Your task to perform on an android device: turn notification dots on Image 0: 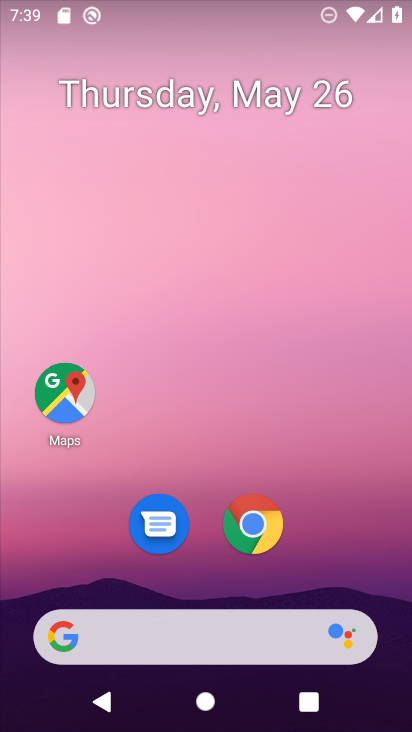
Step 0: drag from (217, 450) to (194, 30)
Your task to perform on an android device: turn notification dots on Image 1: 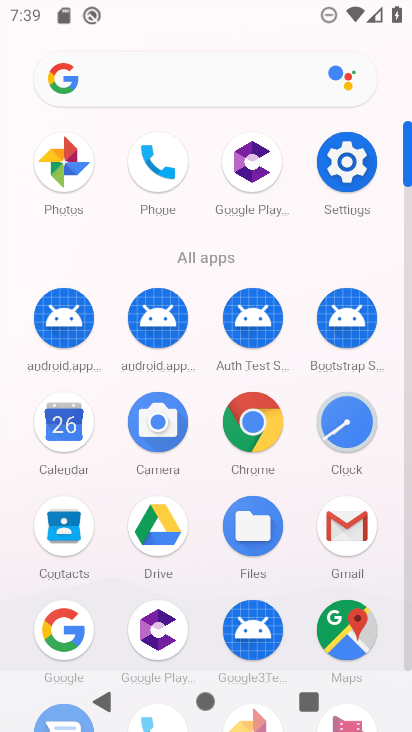
Step 1: click (334, 171)
Your task to perform on an android device: turn notification dots on Image 2: 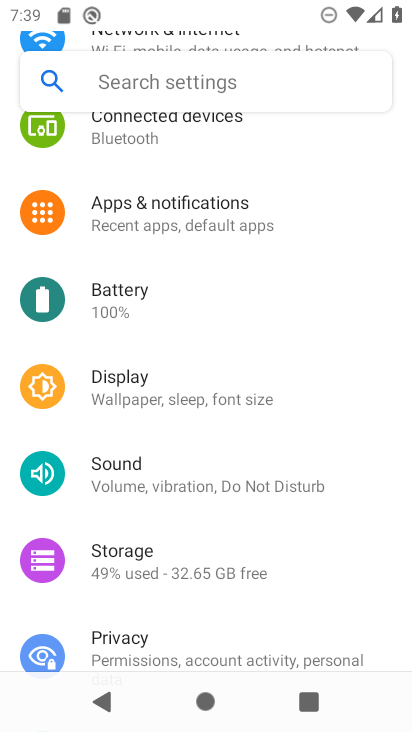
Step 2: click (231, 211)
Your task to perform on an android device: turn notification dots on Image 3: 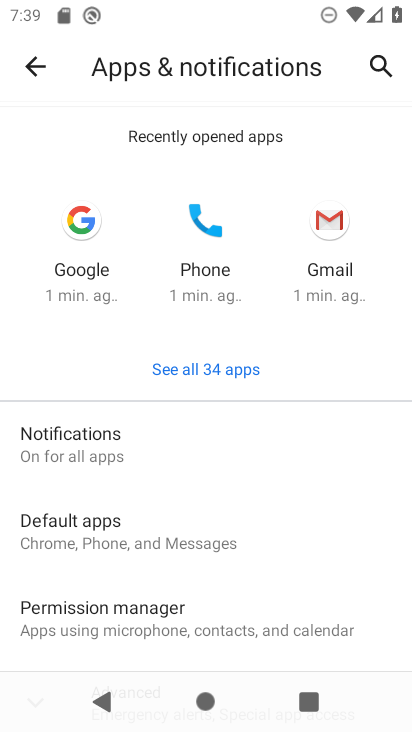
Step 3: click (187, 428)
Your task to perform on an android device: turn notification dots on Image 4: 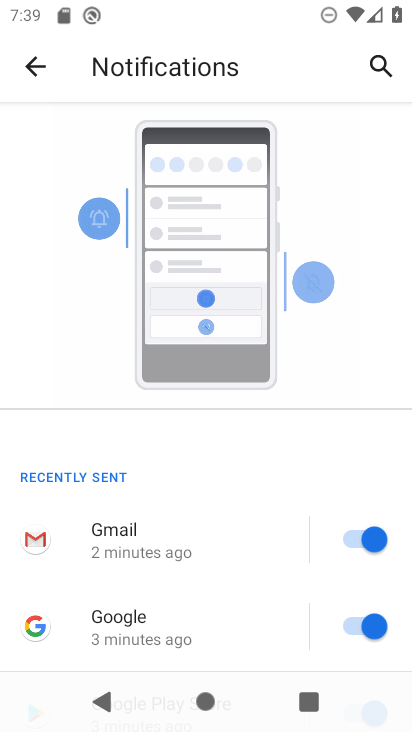
Step 4: drag from (225, 501) to (271, 28)
Your task to perform on an android device: turn notification dots on Image 5: 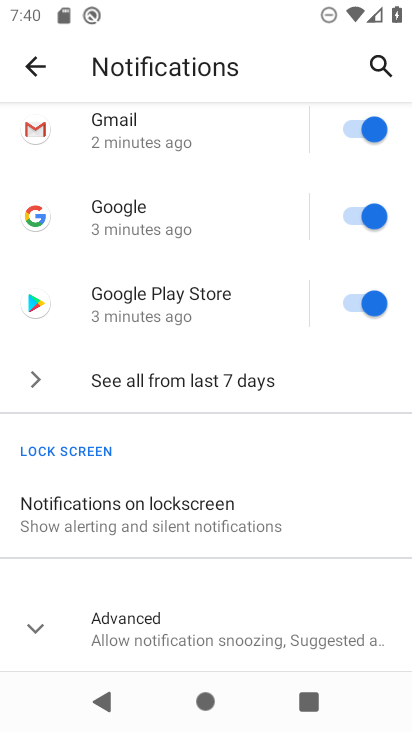
Step 5: click (38, 624)
Your task to perform on an android device: turn notification dots on Image 6: 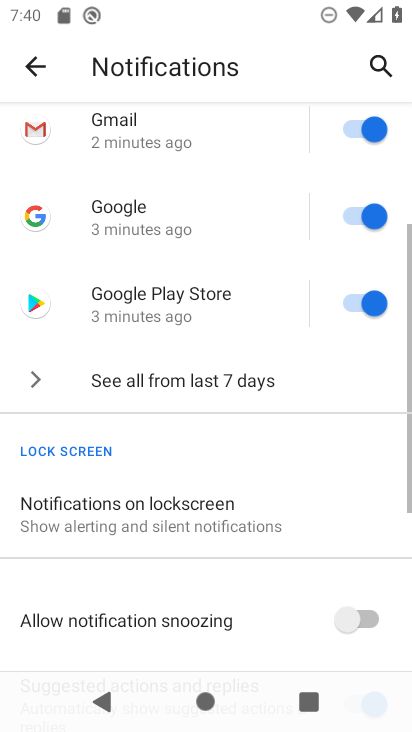
Step 6: task complete